Your task to perform on an android device: Go to Wikipedia Image 0: 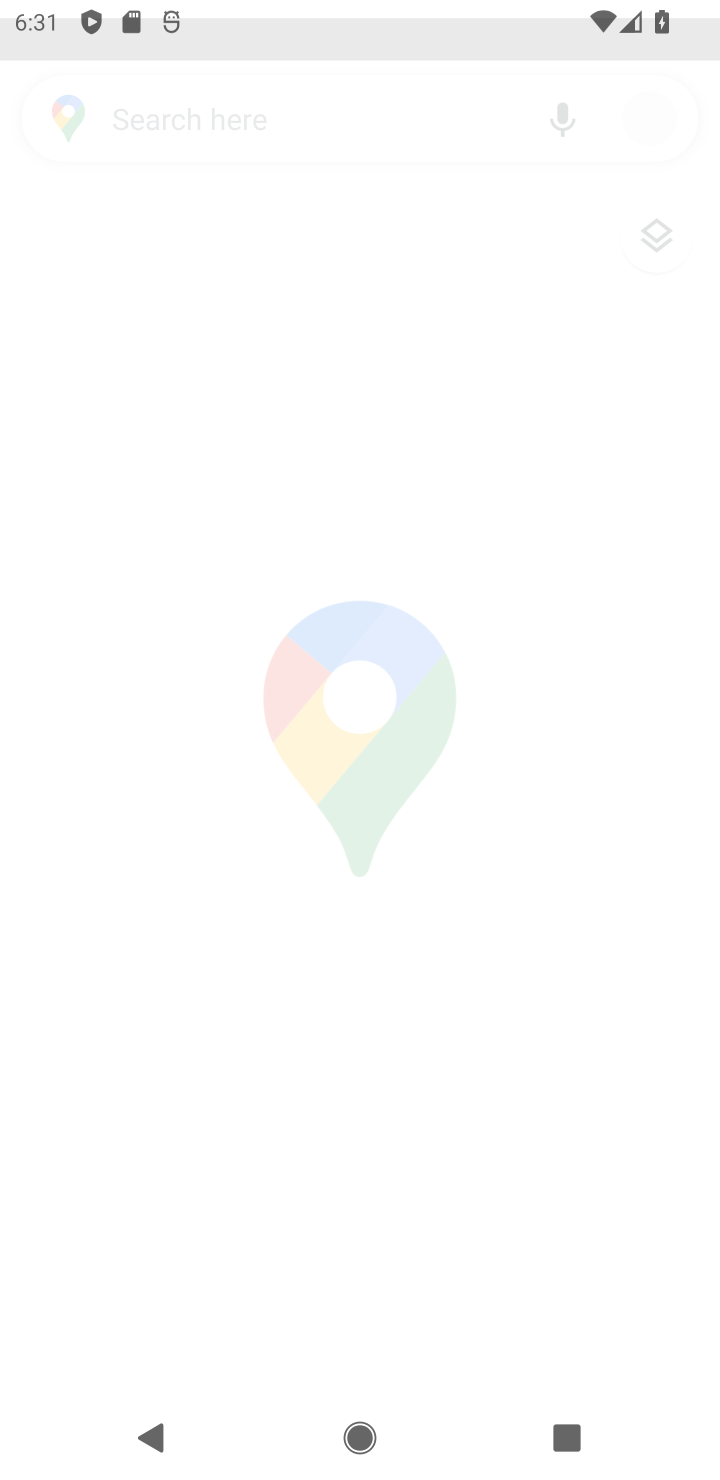
Step 0: press home button
Your task to perform on an android device: Go to Wikipedia Image 1: 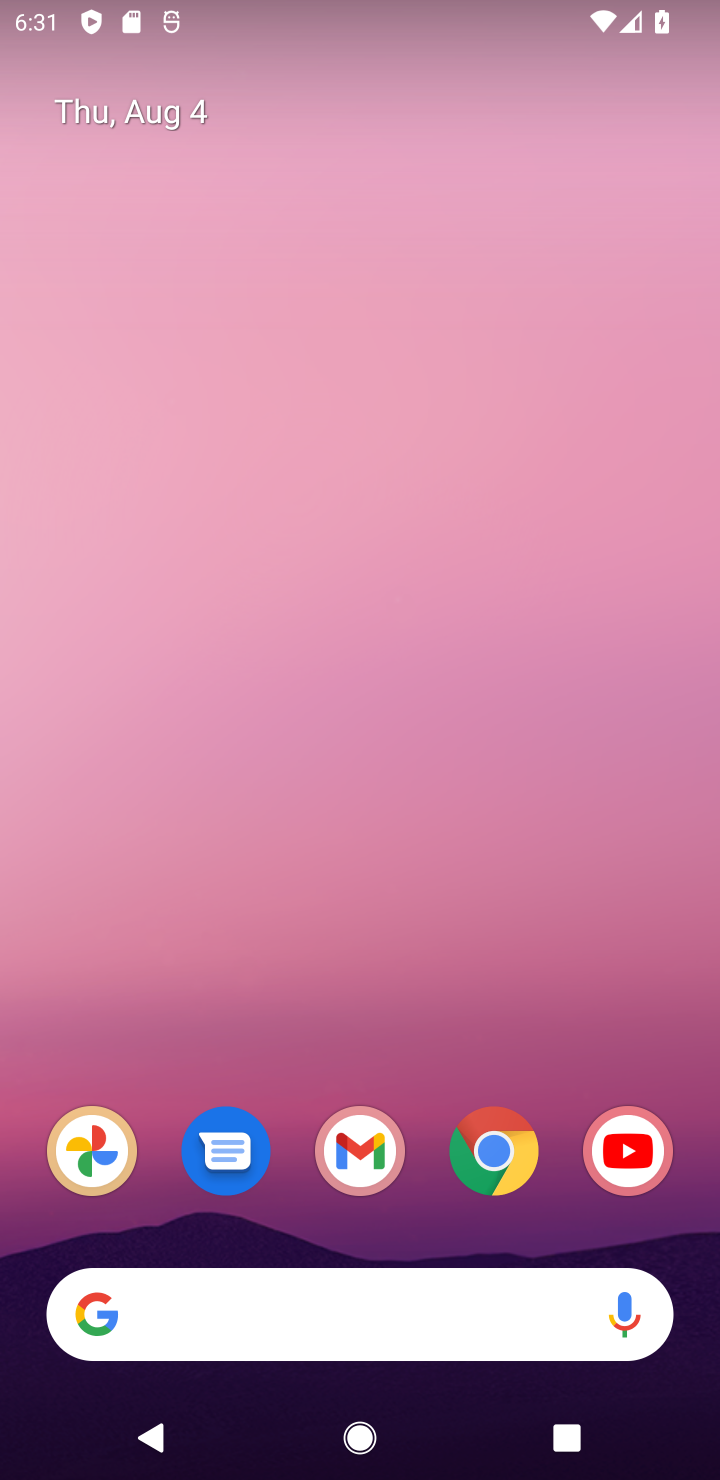
Step 1: click (485, 1179)
Your task to perform on an android device: Go to Wikipedia Image 2: 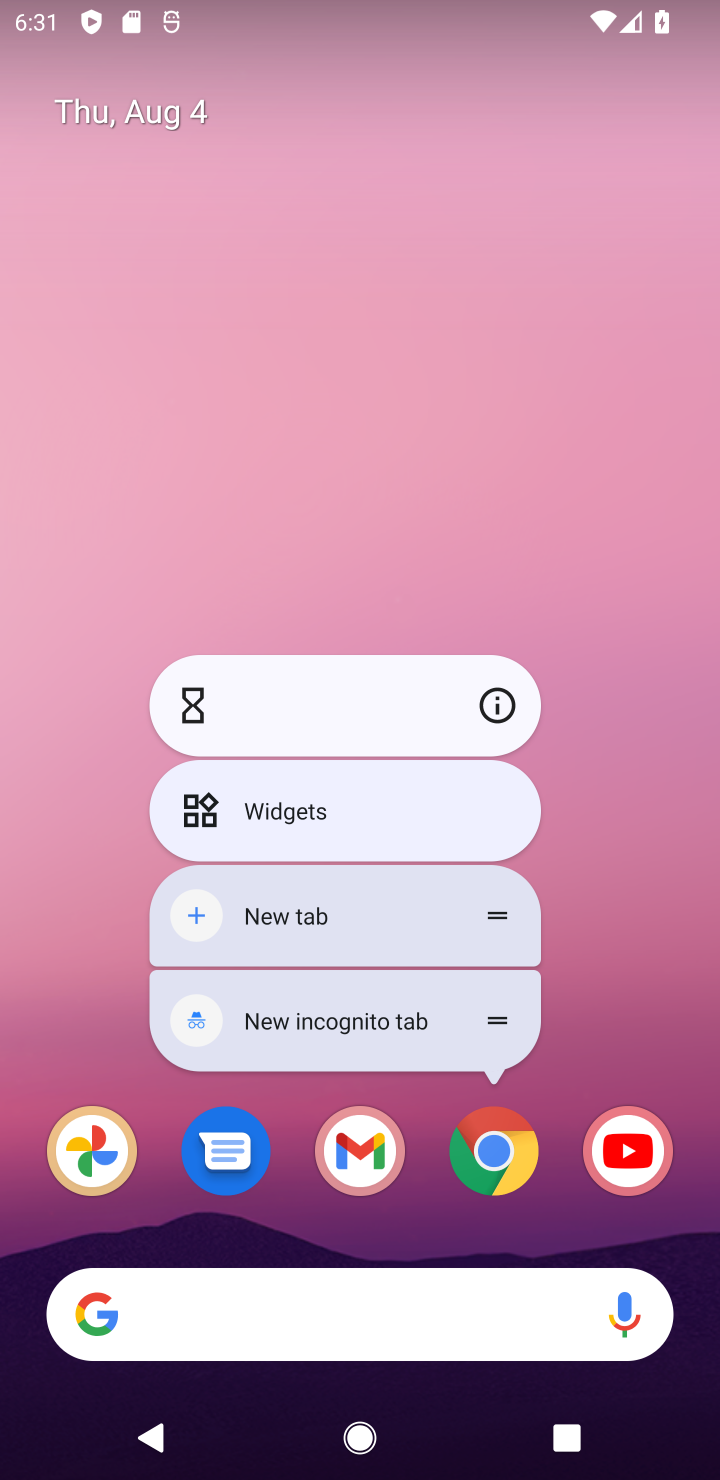
Step 2: click (492, 1159)
Your task to perform on an android device: Go to Wikipedia Image 3: 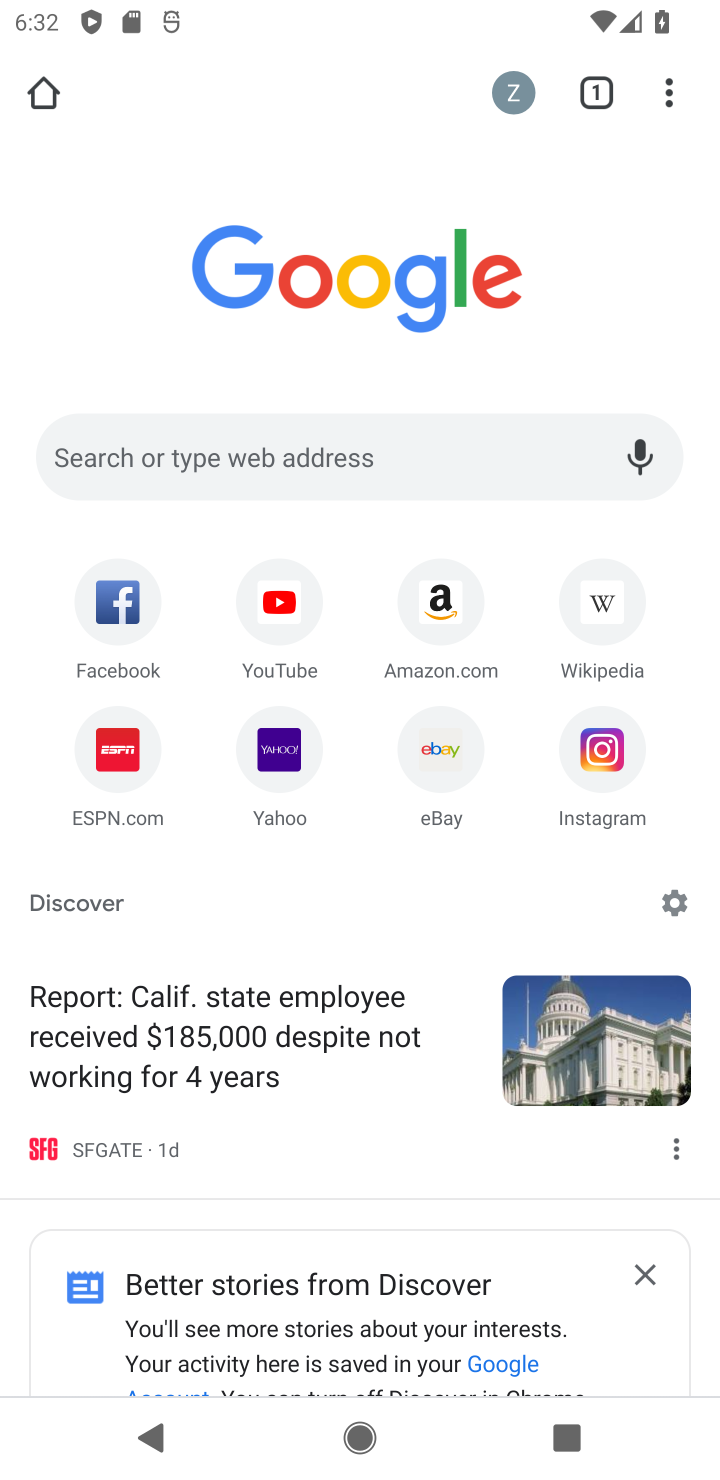
Step 3: click (607, 637)
Your task to perform on an android device: Go to Wikipedia Image 4: 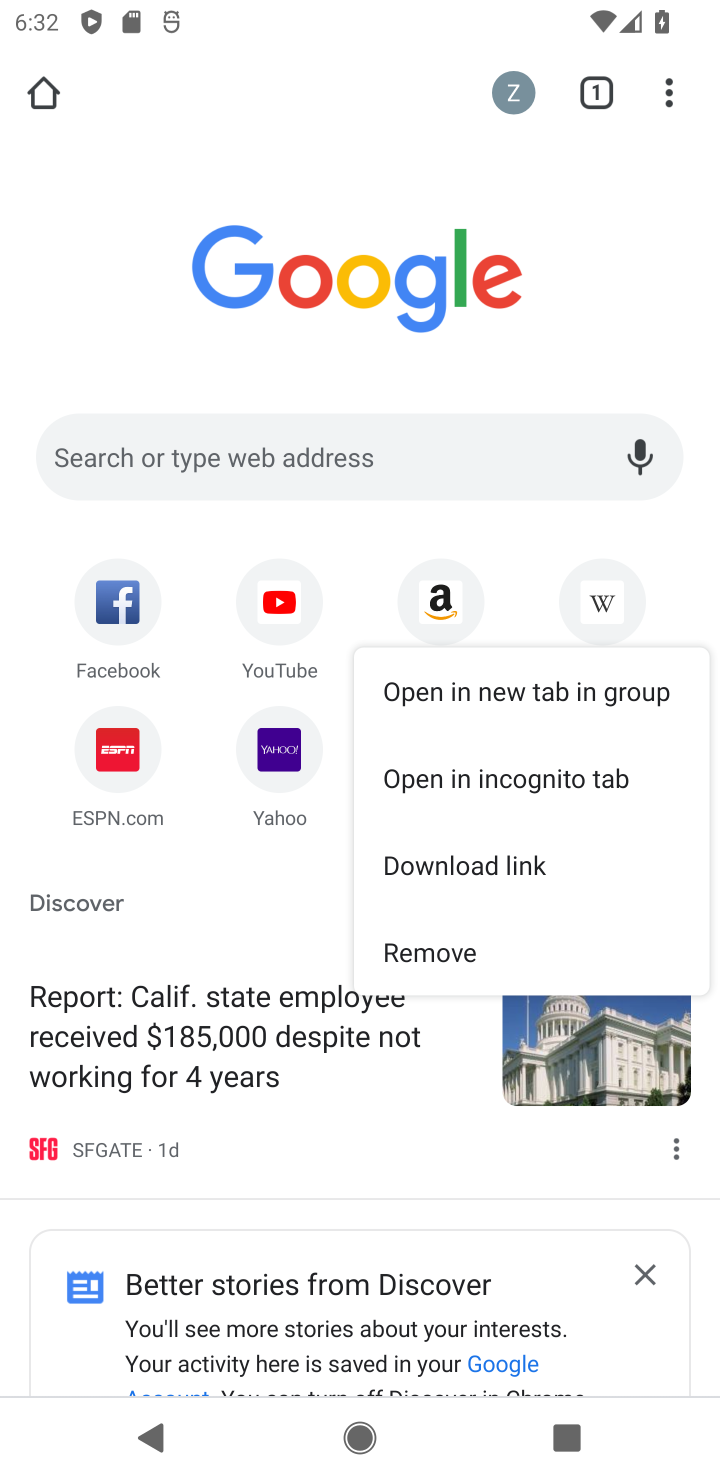
Step 4: click (611, 584)
Your task to perform on an android device: Go to Wikipedia Image 5: 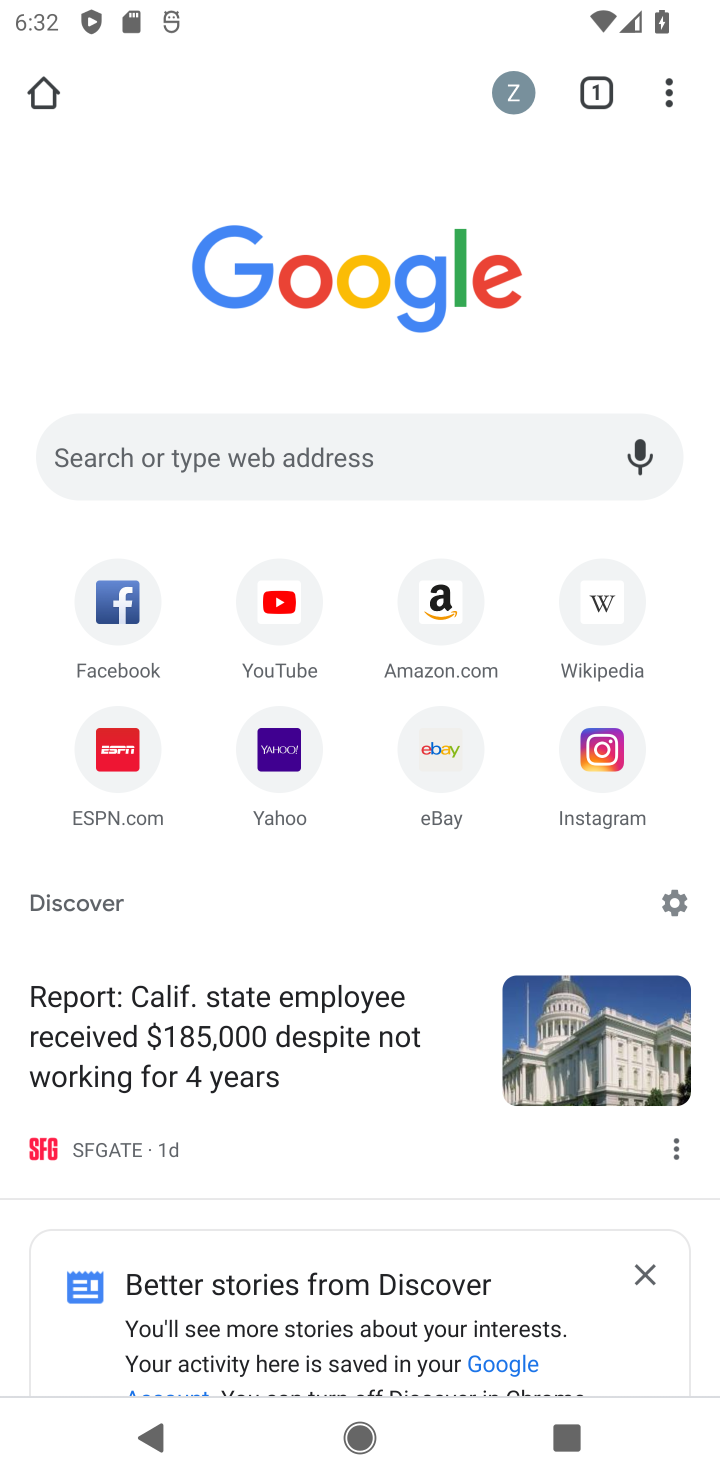
Step 5: click (611, 584)
Your task to perform on an android device: Go to Wikipedia Image 6: 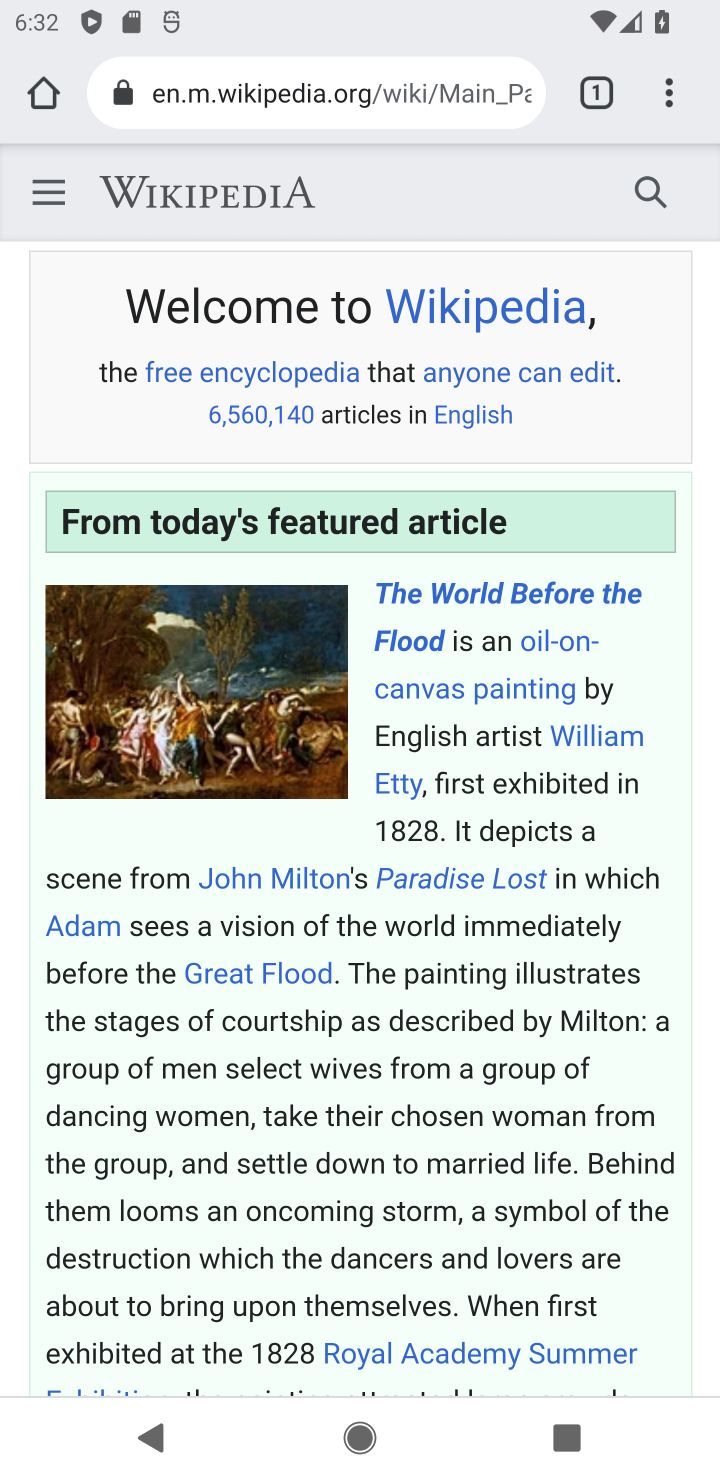
Step 6: task complete